Your task to perform on an android device: open app "PlayWell" (install if not already installed) Image 0: 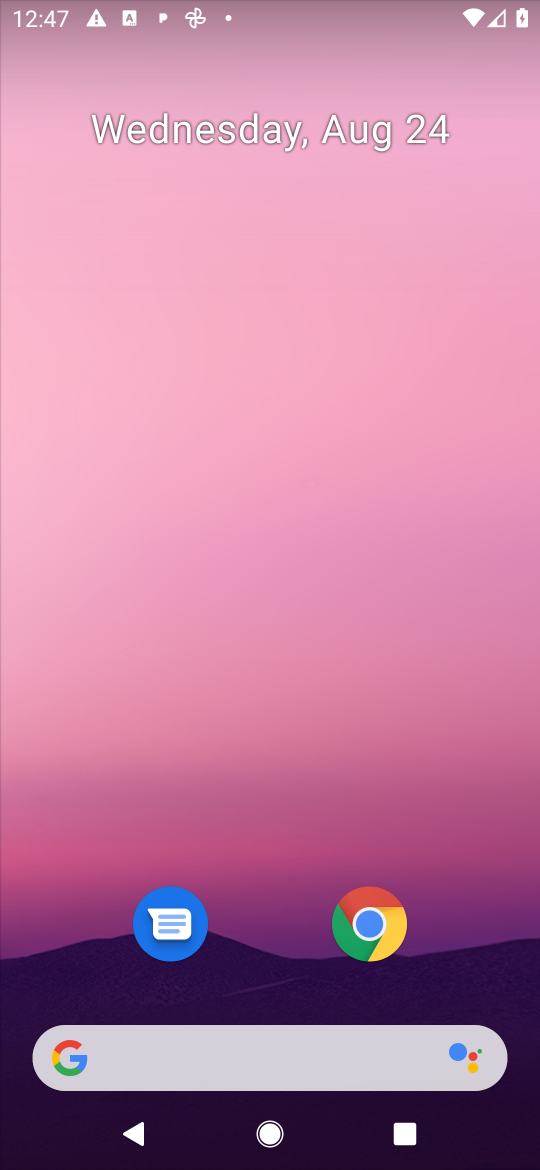
Step 0: press home button
Your task to perform on an android device: open app "PlayWell" (install if not already installed) Image 1: 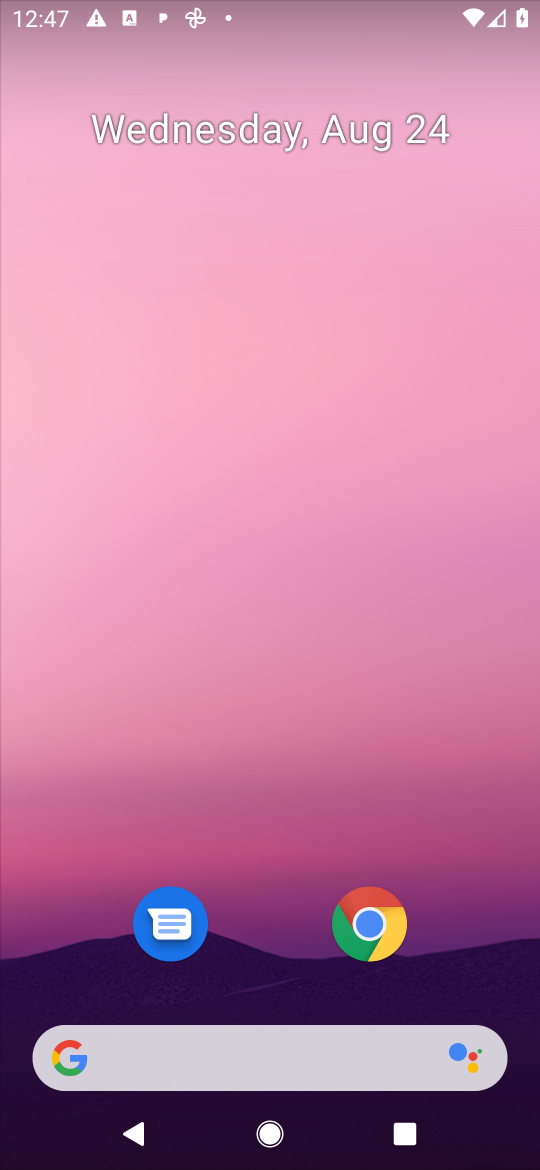
Step 1: drag from (492, 968) to (471, 136)
Your task to perform on an android device: open app "PlayWell" (install if not already installed) Image 2: 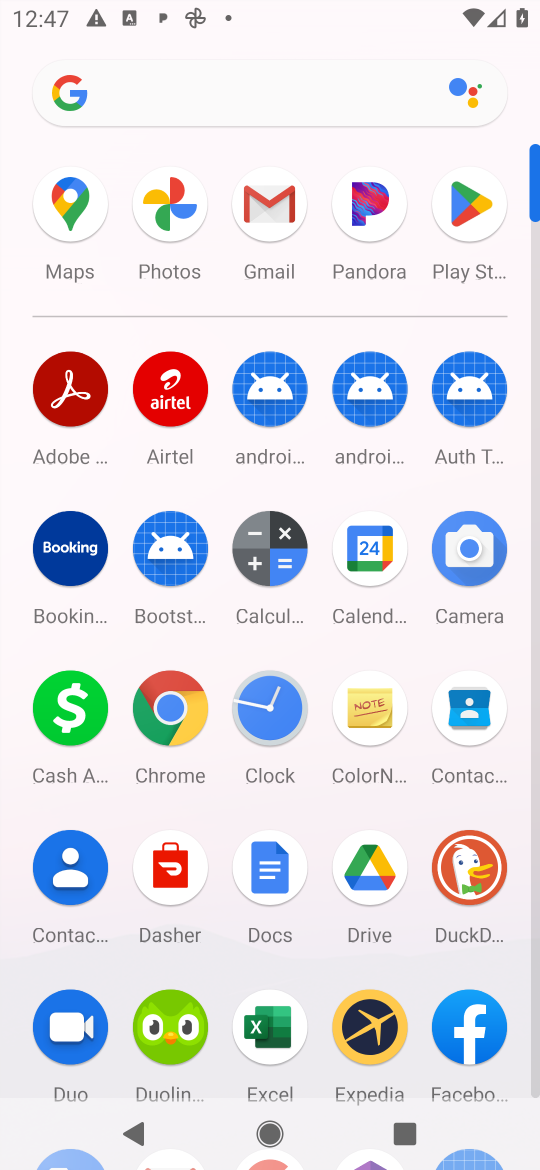
Step 2: click (469, 207)
Your task to perform on an android device: open app "PlayWell" (install if not already installed) Image 3: 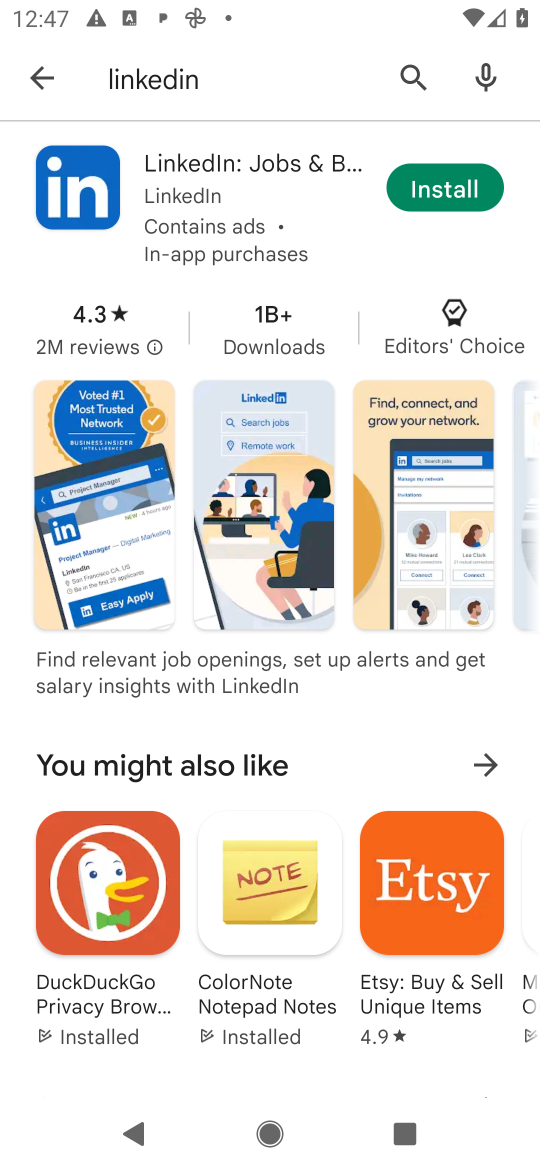
Step 3: press back button
Your task to perform on an android device: open app "PlayWell" (install if not already installed) Image 4: 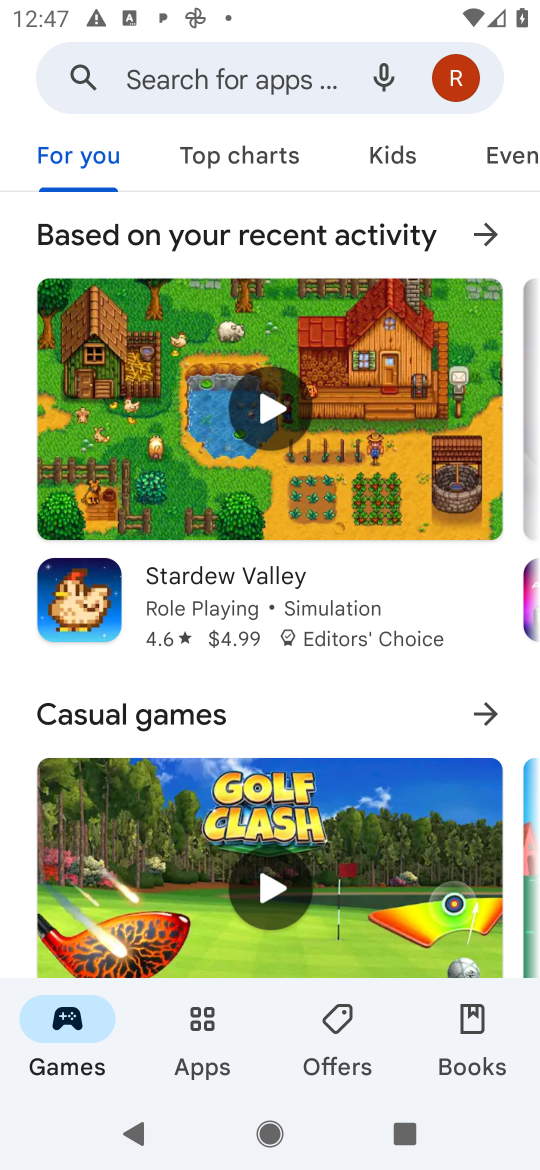
Step 4: click (270, 86)
Your task to perform on an android device: open app "PlayWell" (install if not already installed) Image 5: 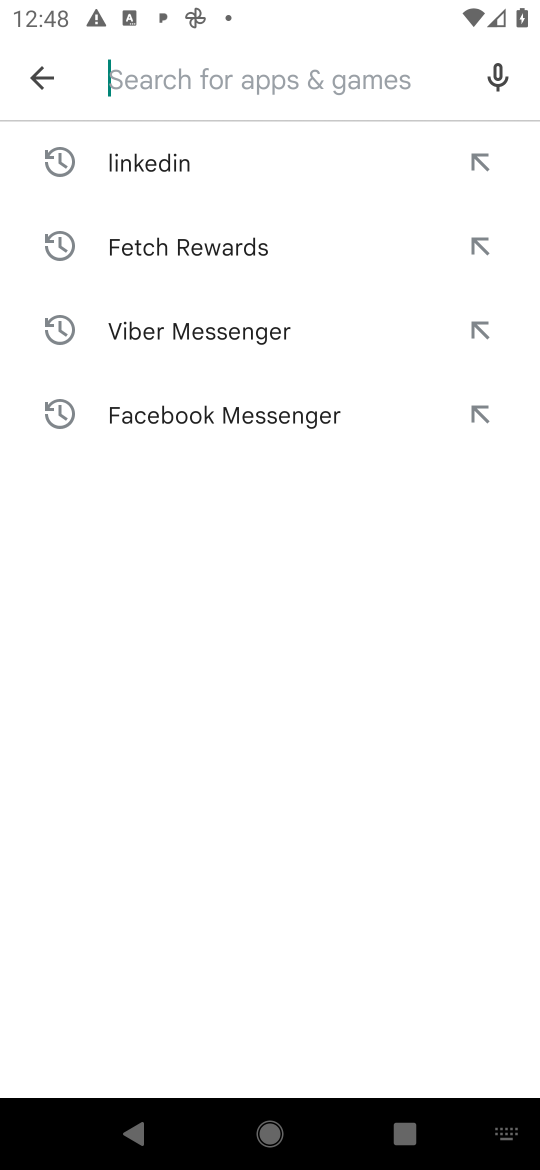
Step 5: press enter
Your task to perform on an android device: open app "PlayWell" (install if not already installed) Image 6: 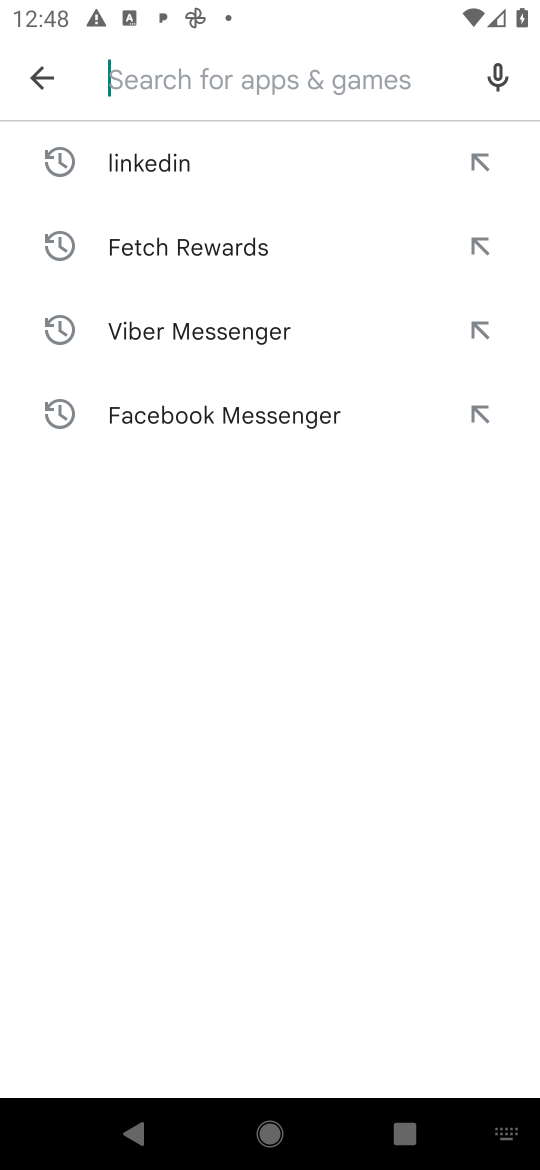
Step 6: type "play well"
Your task to perform on an android device: open app "PlayWell" (install if not already installed) Image 7: 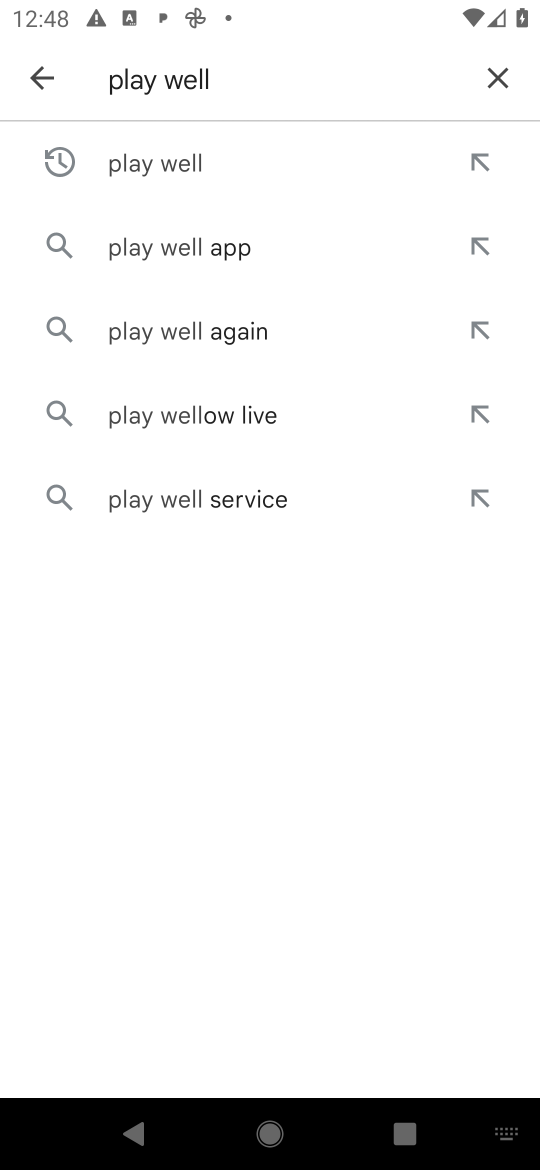
Step 7: click (238, 160)
Your task to perform on an android device: open app "PlayWell" (install if not already installed) Image 8: 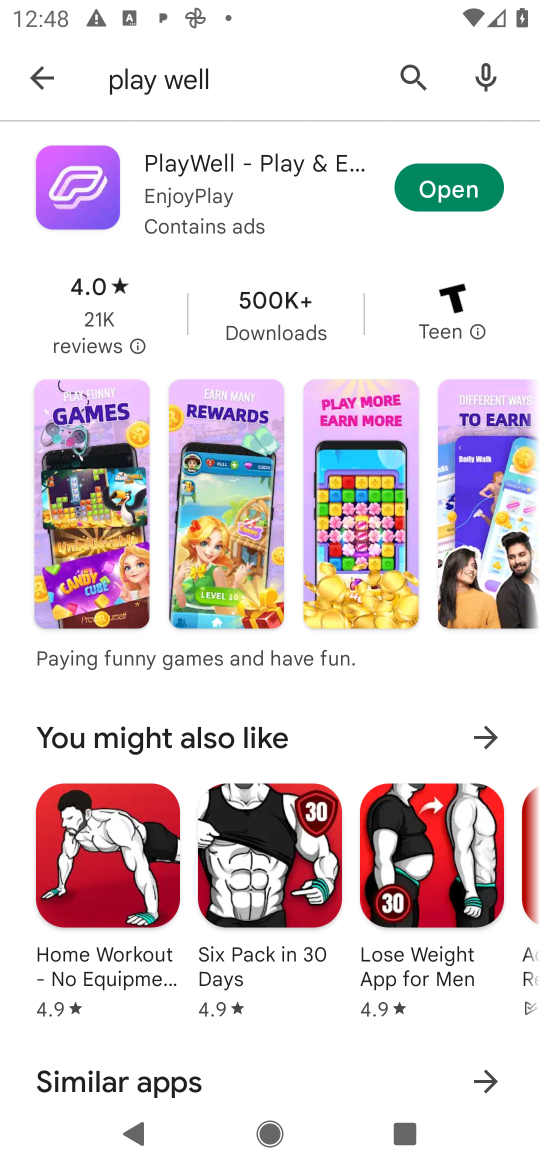
Step 8: click (459, 188)
Your task to perform on an android device: open app "PlayWell" (install if not already installed) Image 9: 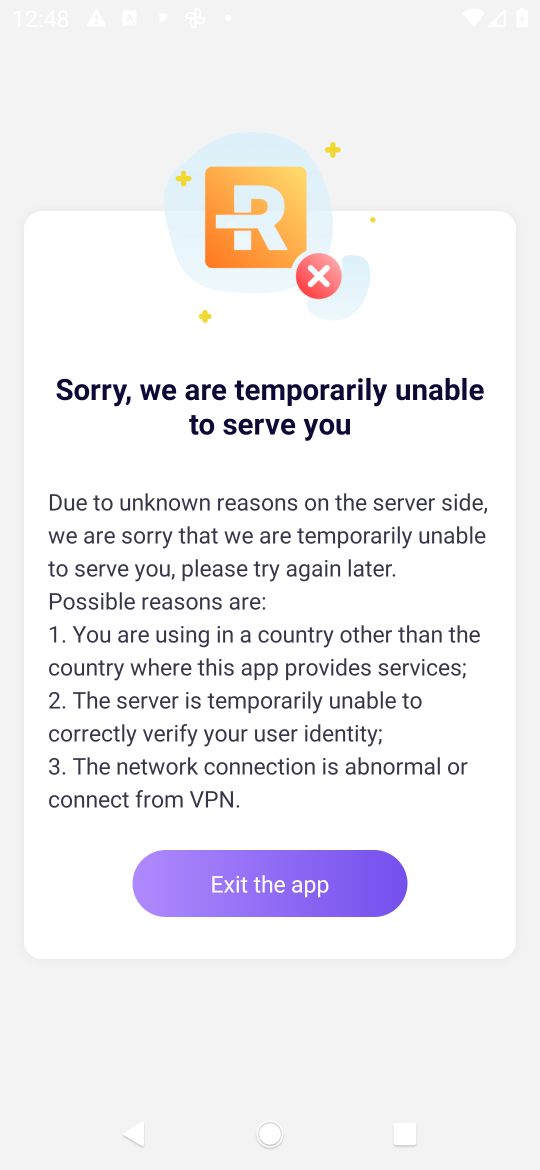
Step 9: task complete